Your task to perform on an android device: empty trash in the gmail app Image 0: 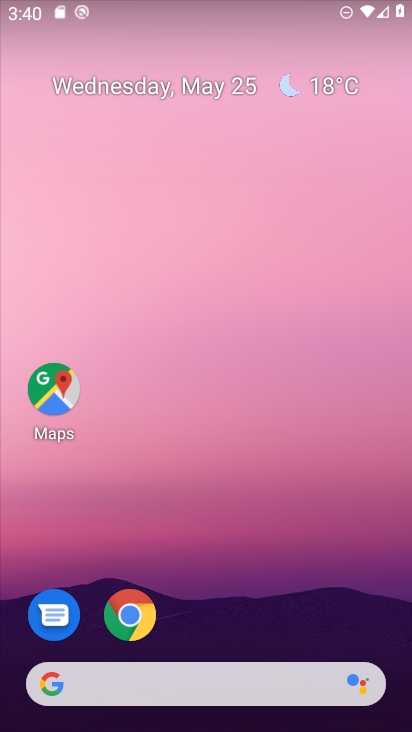
Step 0: drag from (280, 553) to (298, 26)
Your task to perform on an android device: empty trash in the gmail app Image 1: 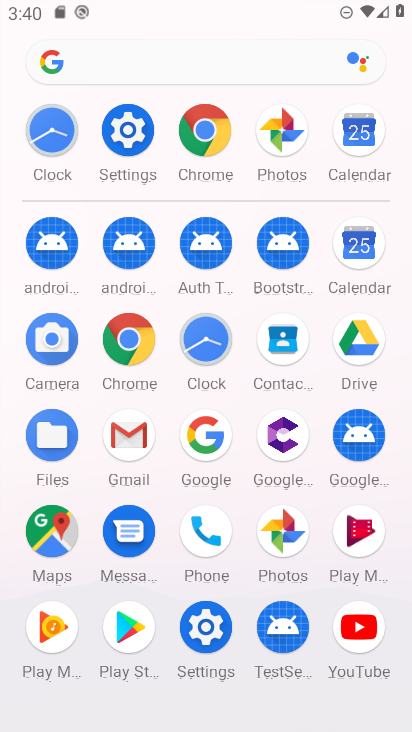
Step 1: click (139, 422)
Your task to perform on an android device: empty trash in the gmail app Image 2: 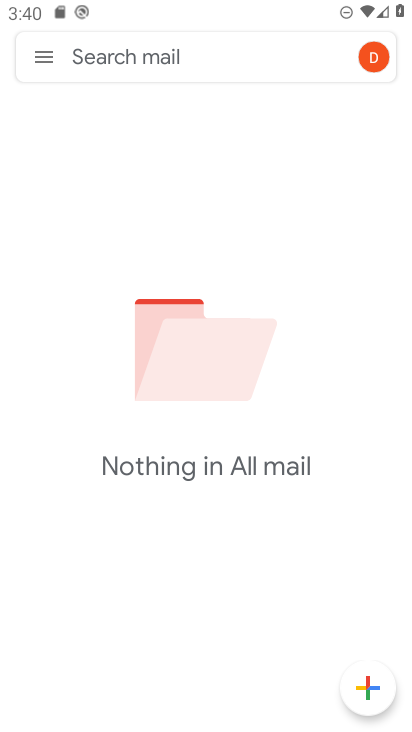
Step 2: click (46, 58)
Your task to perform on an android device: empty trash in the gmail app Image 3: 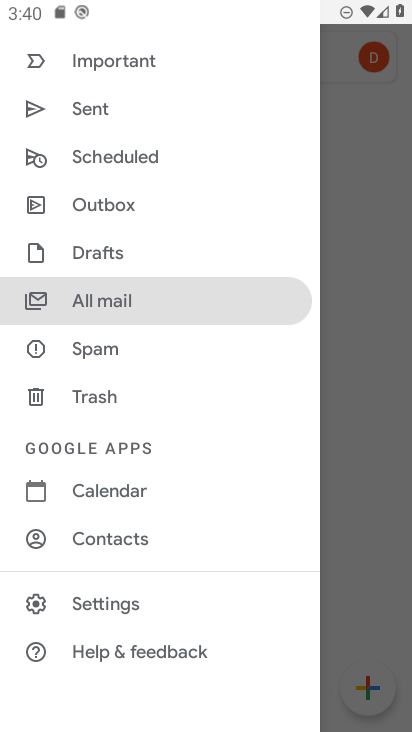
Step 3: click (108, 386)
Your task to perform on an android device: empty trash in the gmail app Image 4: 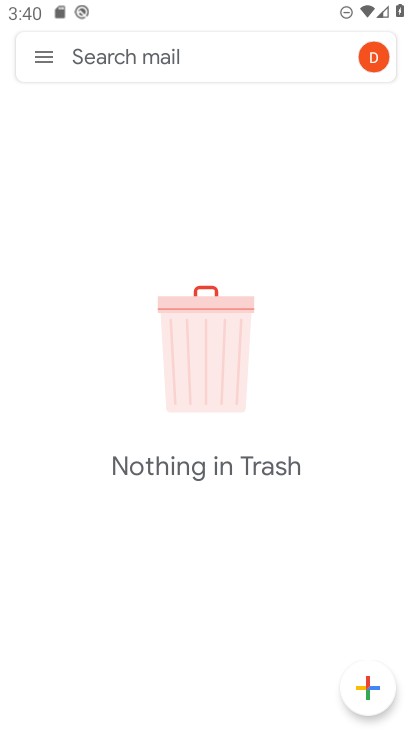
Step 4: task complete